Your task to perform on an android device: Open Maps and search for coffee Image 0: 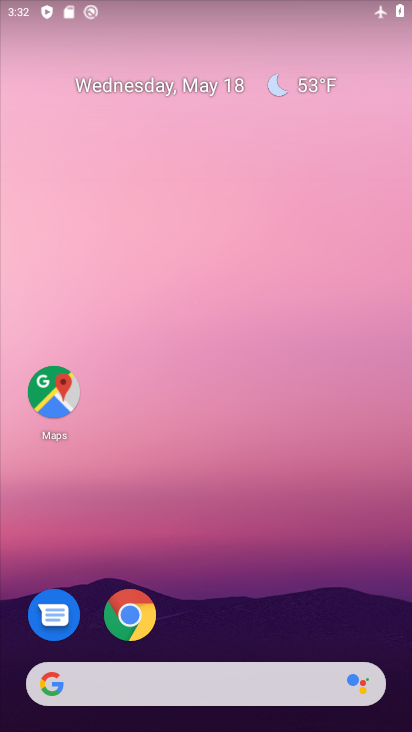
Step 0: click (49, 402)
Your task to perform on an android device: Open Maps and search for coffee Image 1: 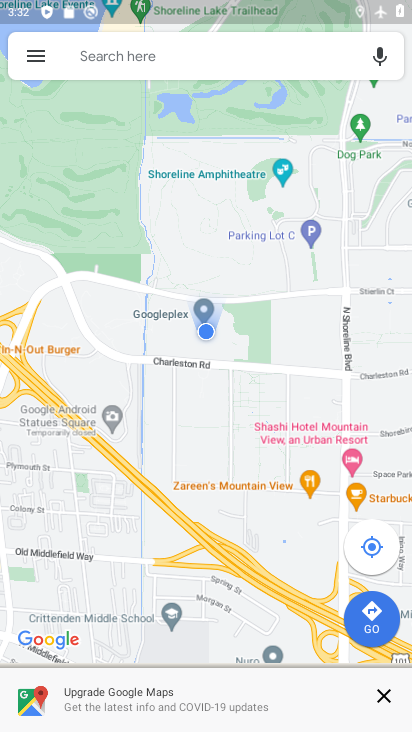
Step 1: click (237, 41)
Your task to perform on an android device: Open Maps and search for coffee Image 2: 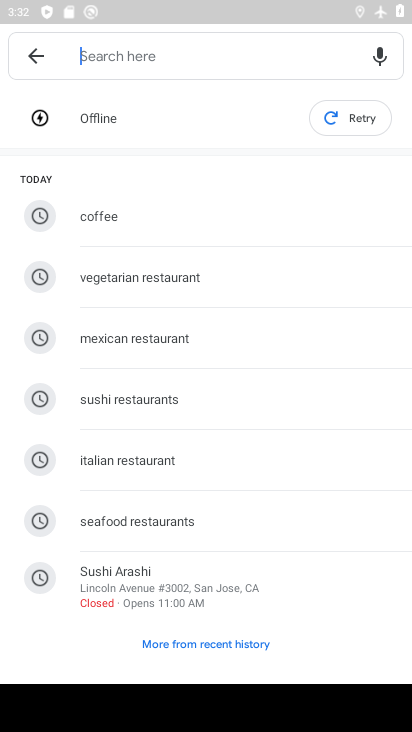
Step 2: click (98, 212)
Your task to perform on an android device: Open Maps and search for coffee Image 3: 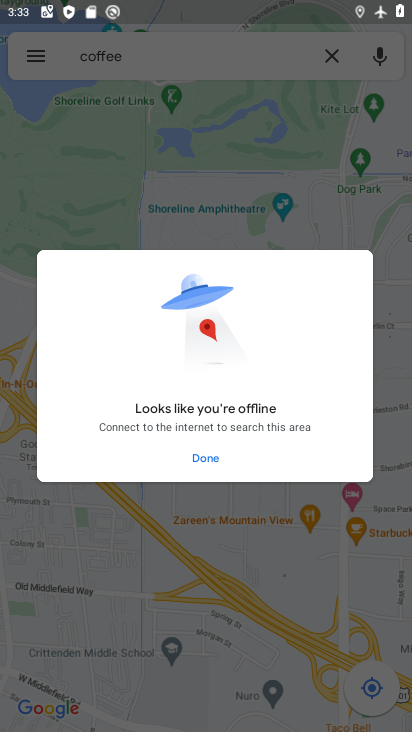
Step 3: task complete